Your task to perform on an android device: toggle translation in the chrome app Image 0: 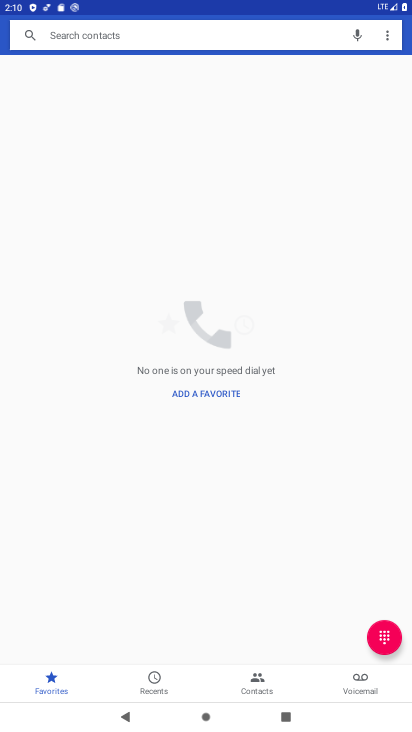
Step 0: press home button
Your task to perform on an android device: toggle translation in the chrome app Image 1: 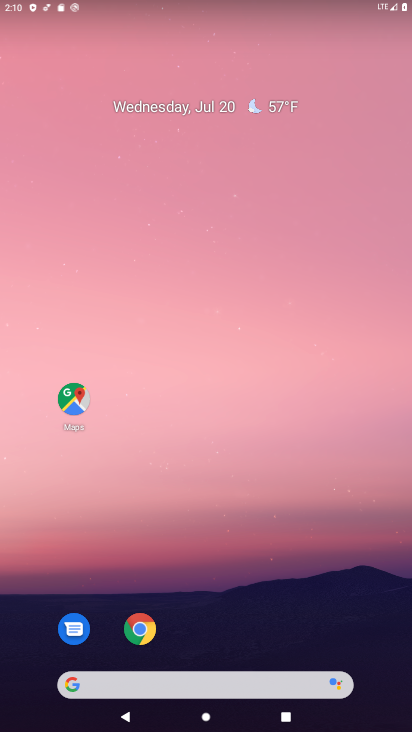
Step 1: click (138, 633)
Your task to perform on an android device: toggle translation in the chrome app Image 2: 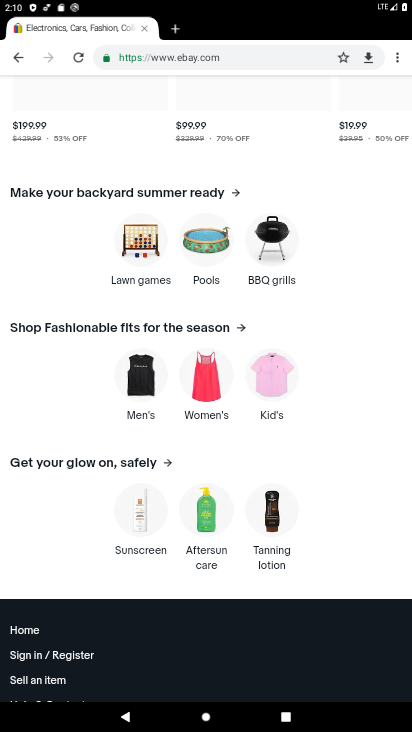
Step 2: click (396, 59)
Your task to perform on an android device: toggle translation in the chrome app Image 3: 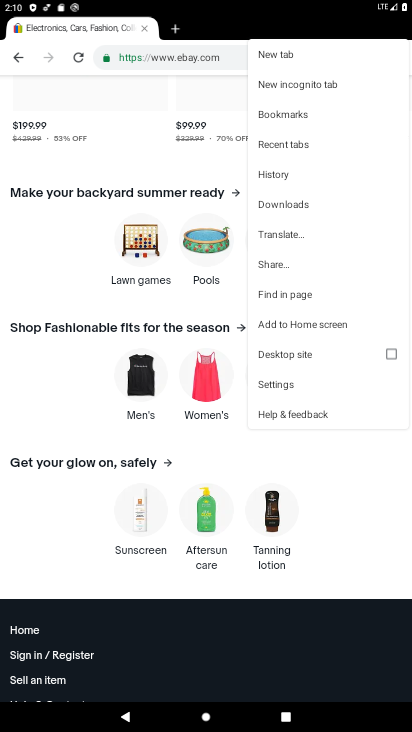
Step 3: click (273, 380)
Your task to perform on an android device: toggle translation in the chrome app Image 4: 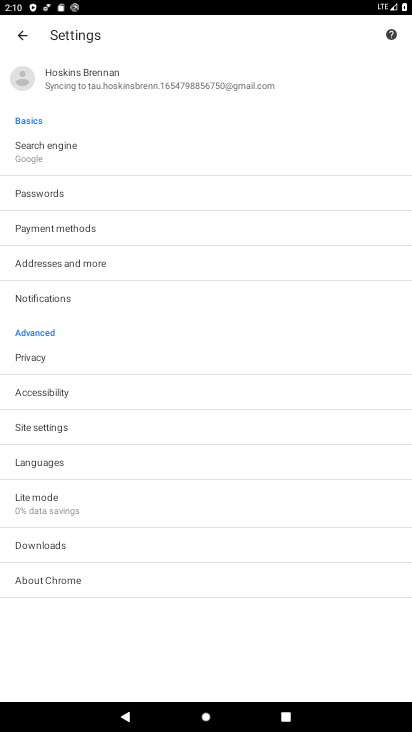
Step 4: click (38, 459)
Your task to perform on an android device: toggle translation in the chrome app Image 5: 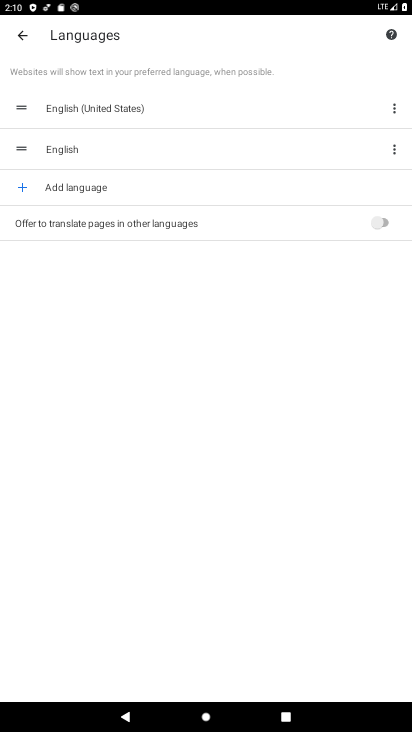
Step 5: click (386, 220)
Your task to perform on an android device: toggle translation in the chrome app Image 6: 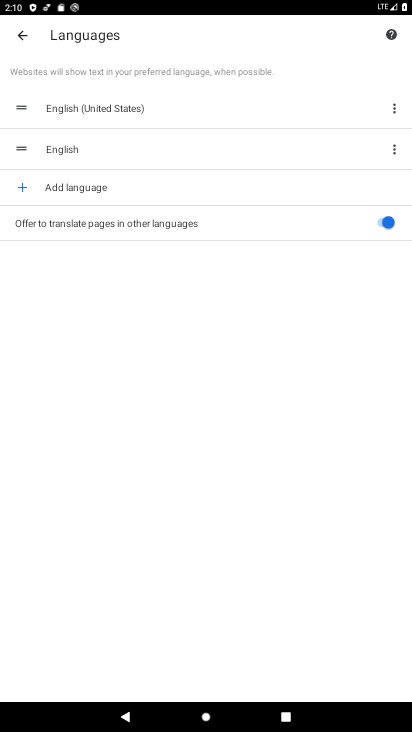
Step 6: task complete